Your task to perform on an android device: create a new album in the google photos Image 0: 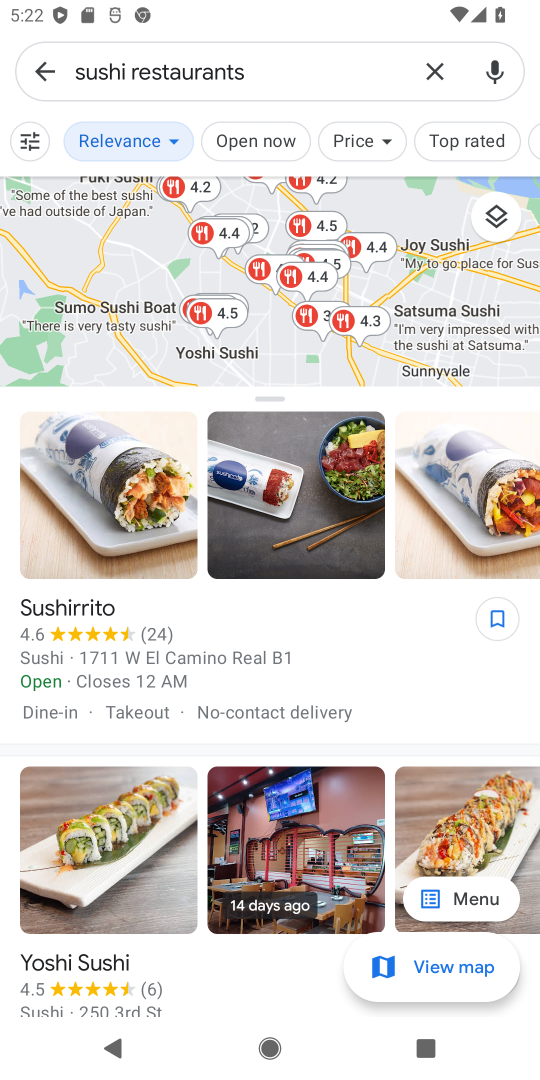
Step 0: press home button
Your task to perform on an android device: create a new album in the google photos Image 1: 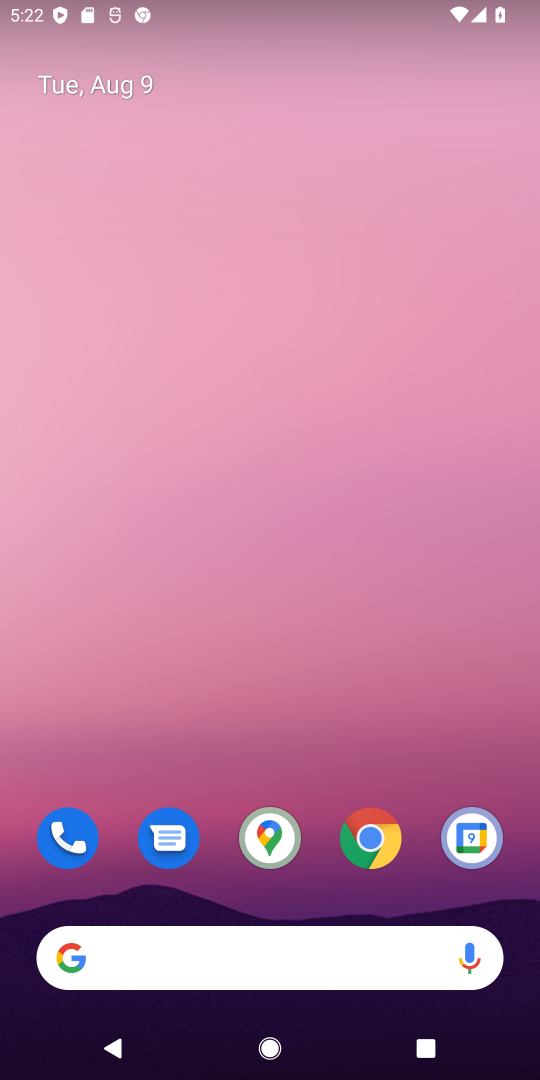
Step 1: drag from (329, 792) to (366, 147)
Your task to perform on an android device: create a new album in the google photos Image 2: 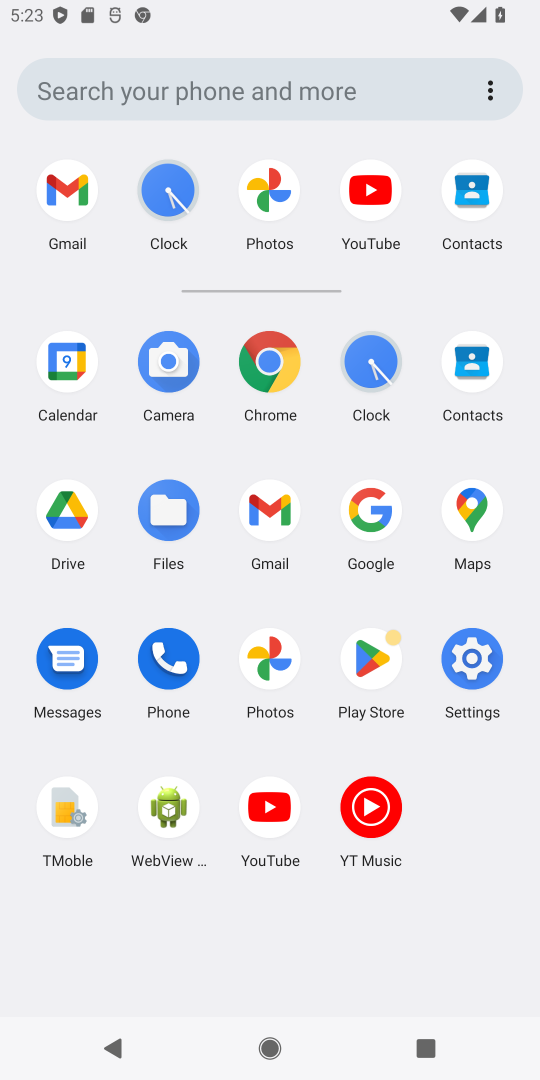
Step 2: click (274, 673)
Your task to perform on an android device: create a new album in the google photos Image 3: 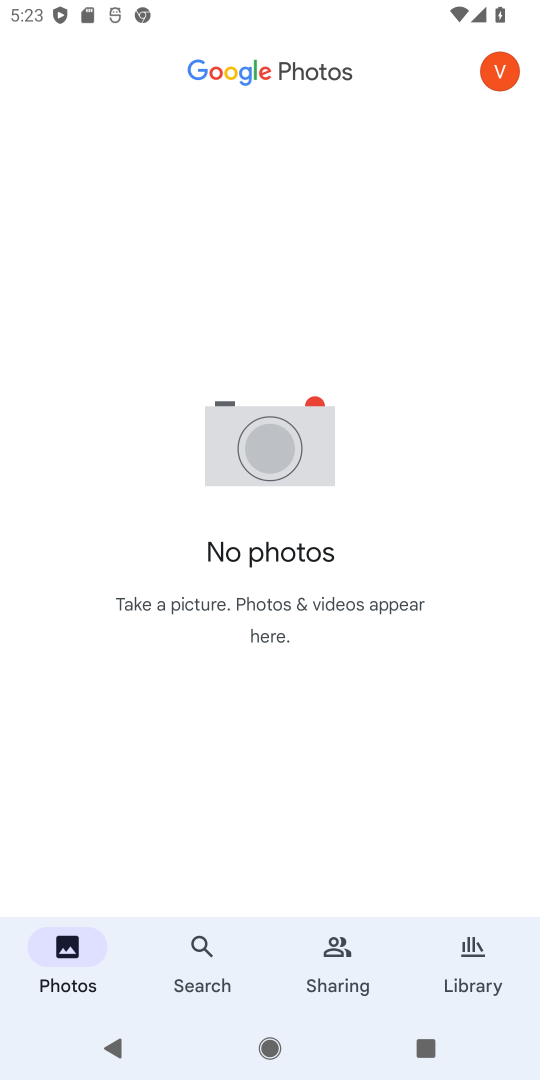
Step 3: click (458, 969)
Your task to perform on an android device: create a new album in the google photos Image 4: 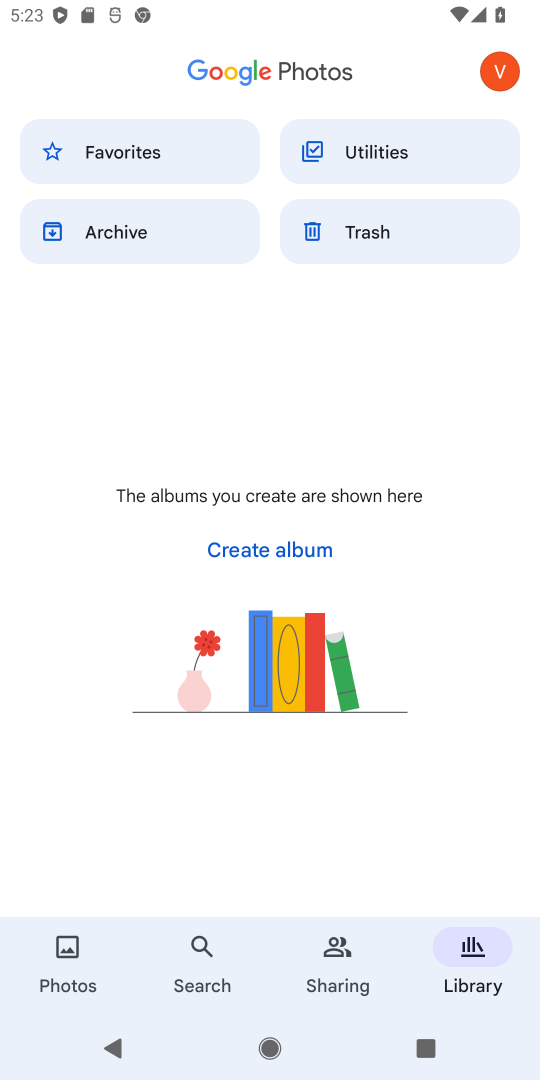
Step 4: click (312, 545)
Your task to perform on an android device: create a new album in the google photos Image 5: 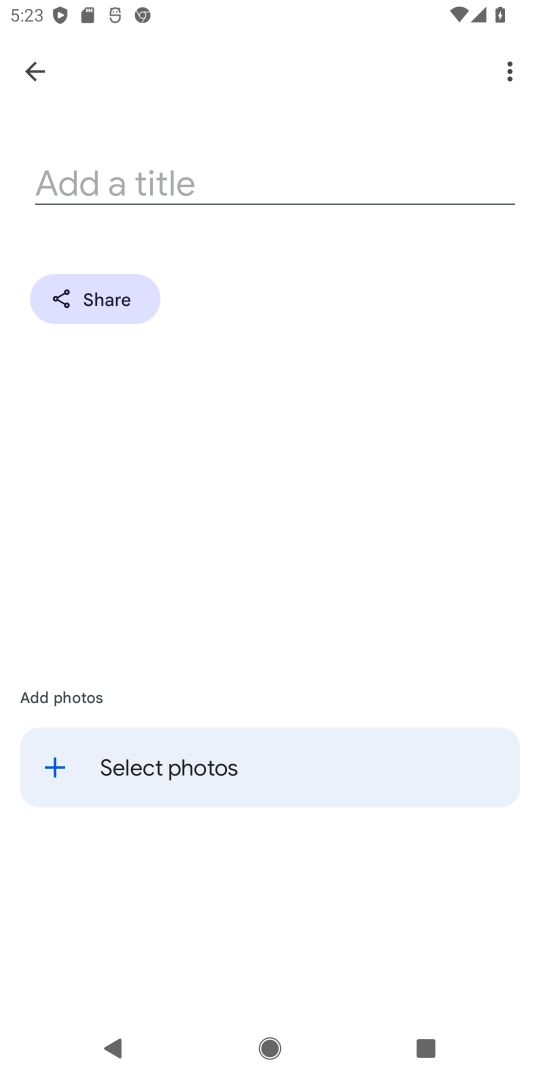
Step 5: click (268, 764)
Your task to perform on an android device: create a new album in the google photos Image 6: 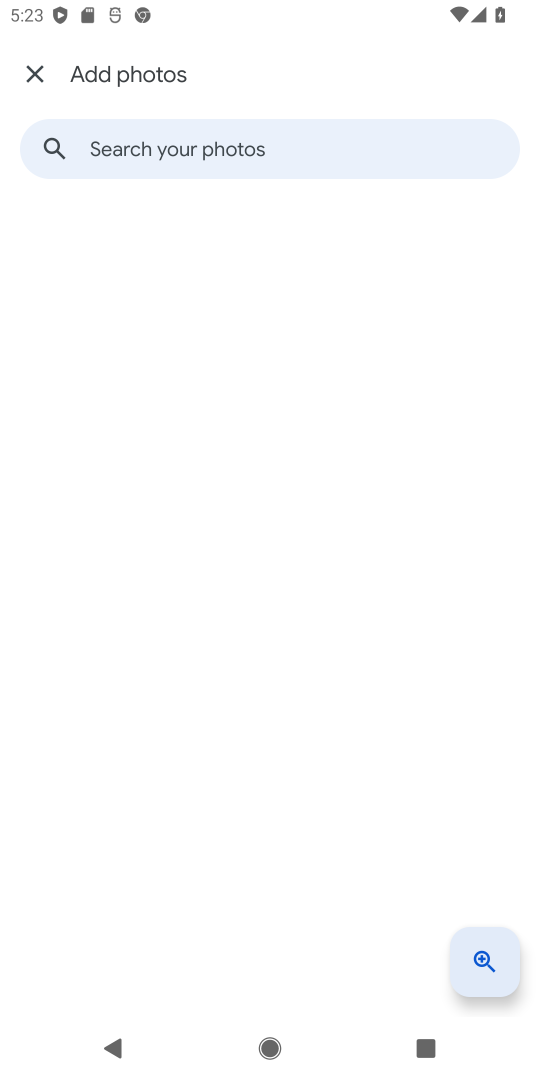
Step 6: task complete